Your task to perform on an android device: Open the stopwatch Image 0: 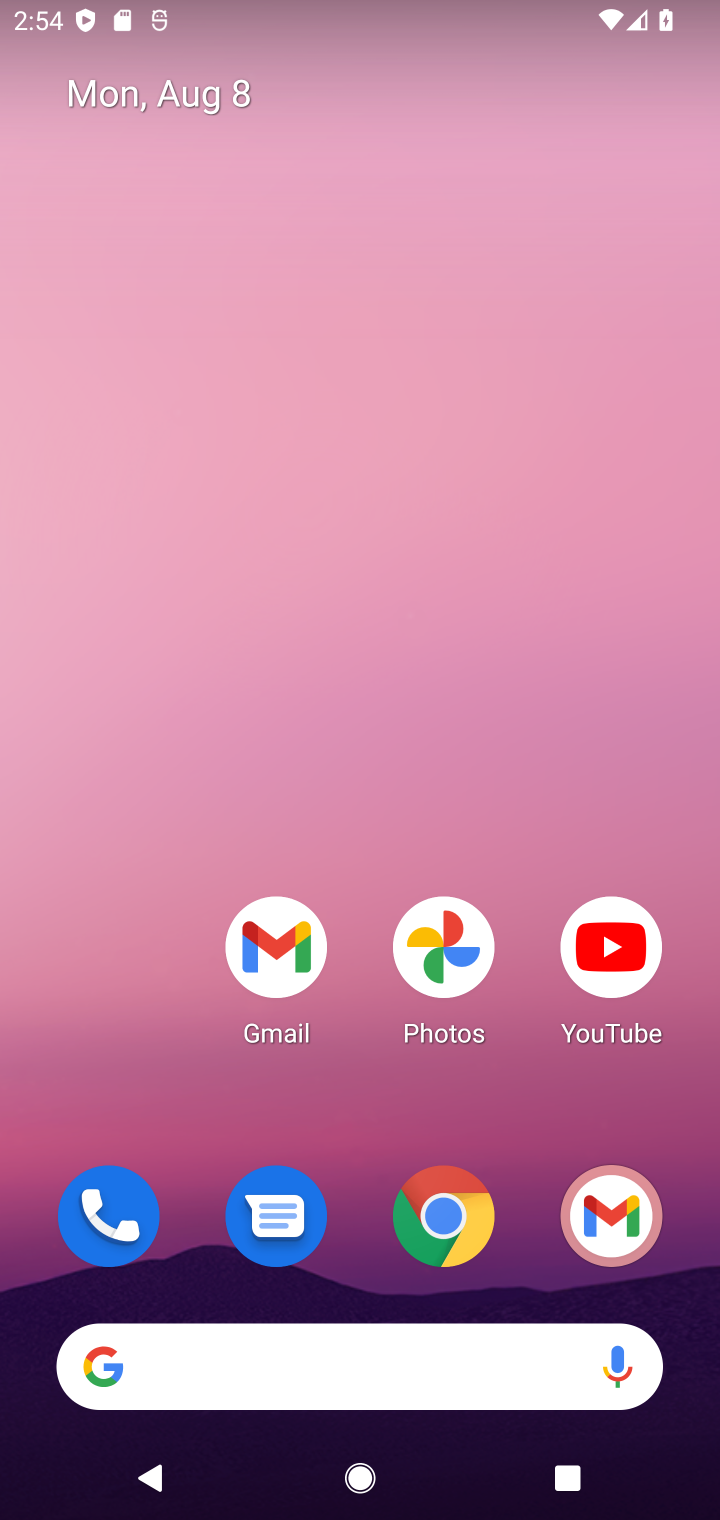
Step 0: drag from (530, 1142) to (406, 283)
Your task to perform on an android device: Open the stopwatch Image 1: 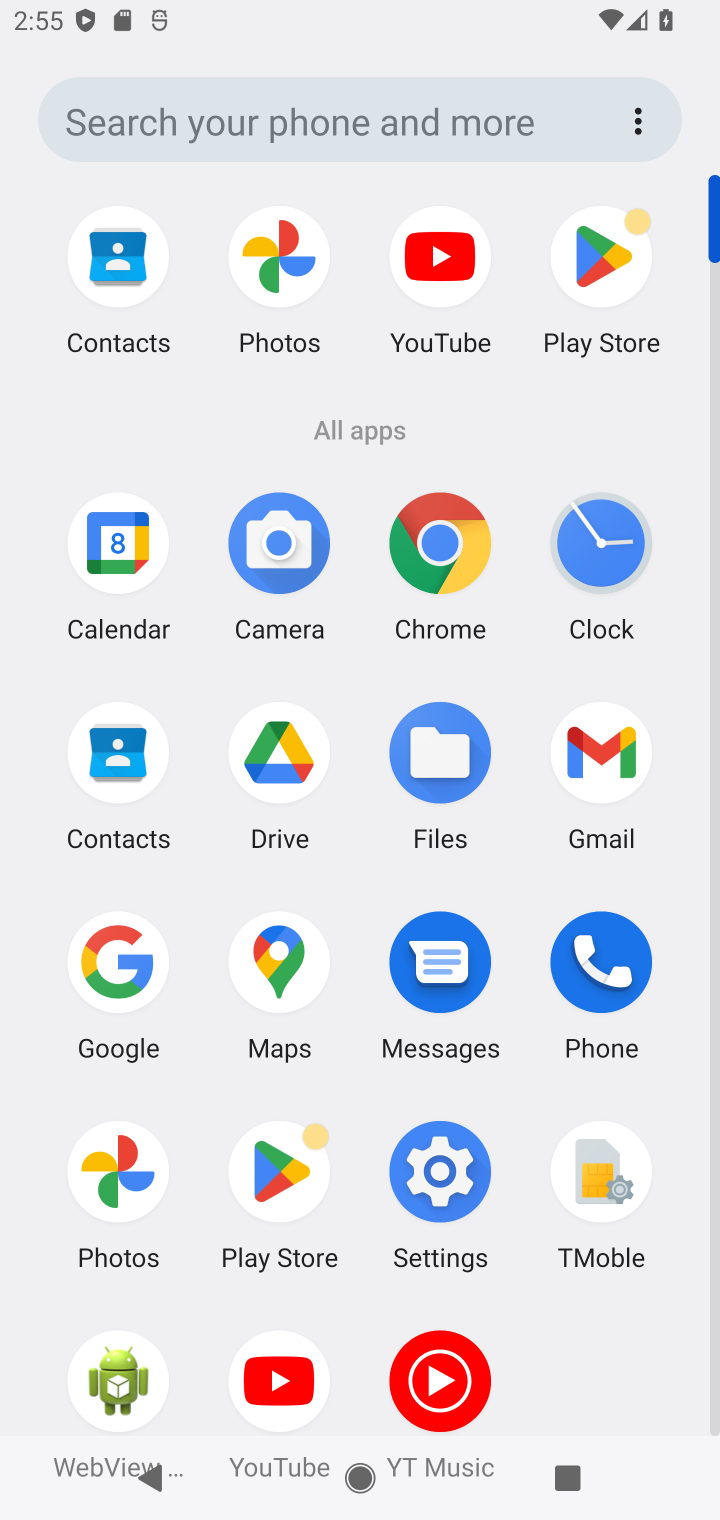
Step 1: click (592, 564)
Your task to perform on an android device: Open the stopwatch Image 2: 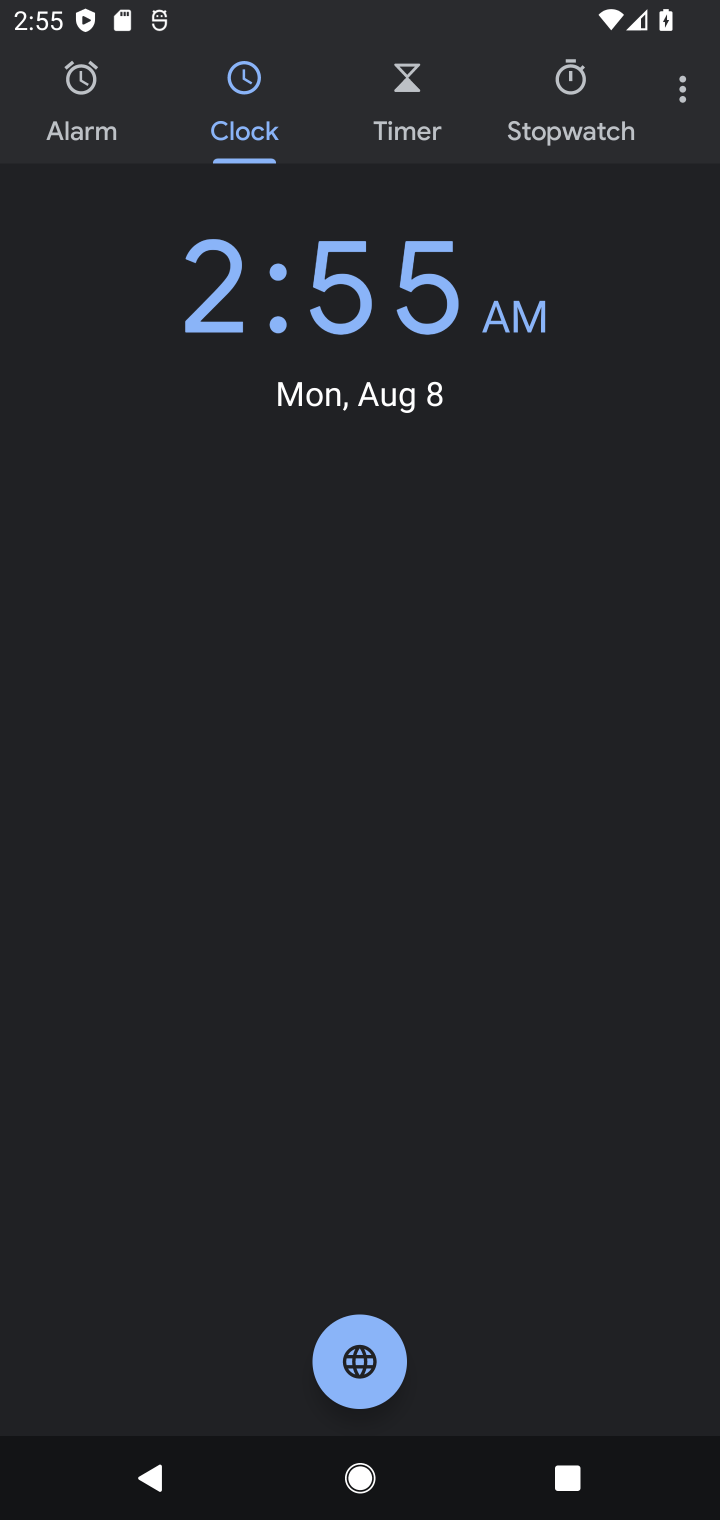
Step 2: click (596, 131)
Your task to perform on an android device: Open the stopwatch Image 3: 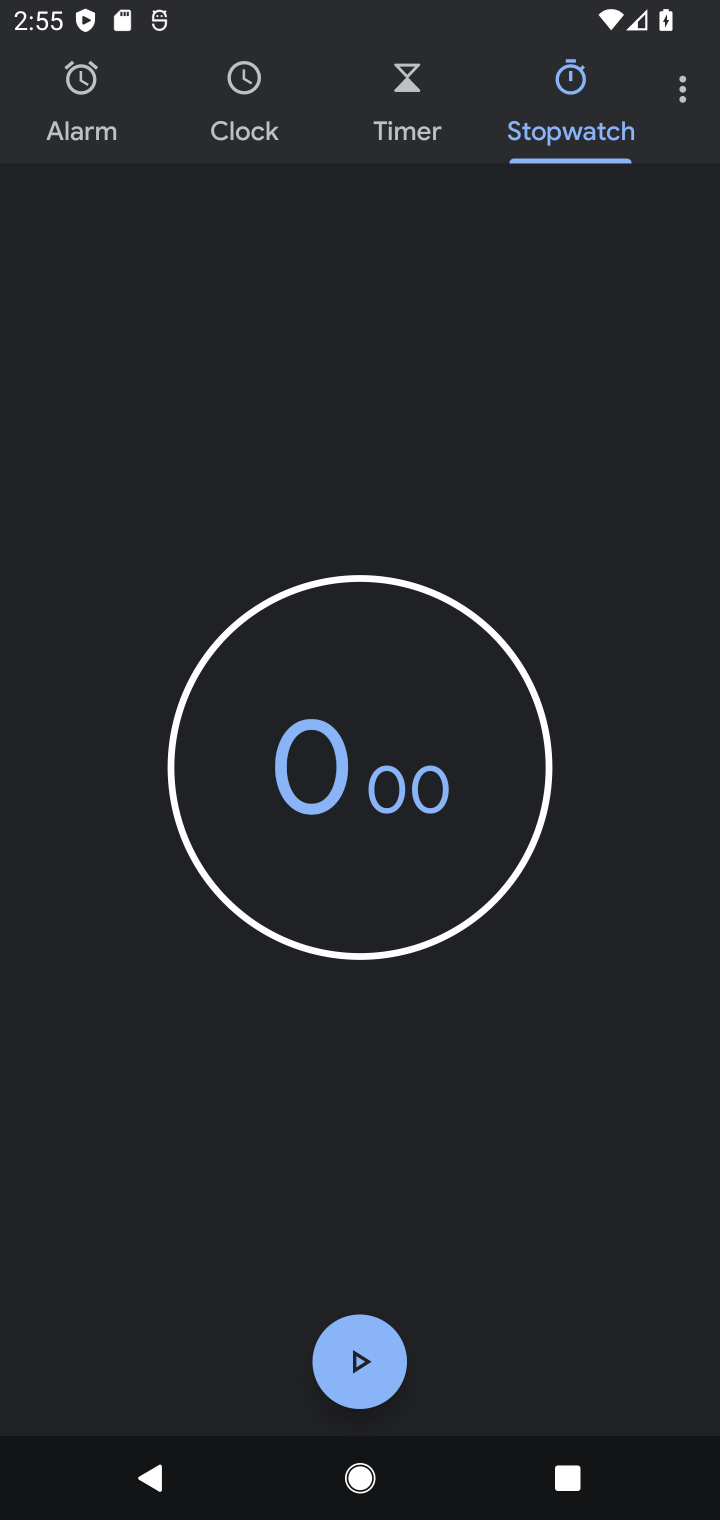
Step 3: task complete